Your task to perform on an android device: Open Maps and search for coffee Image 0: 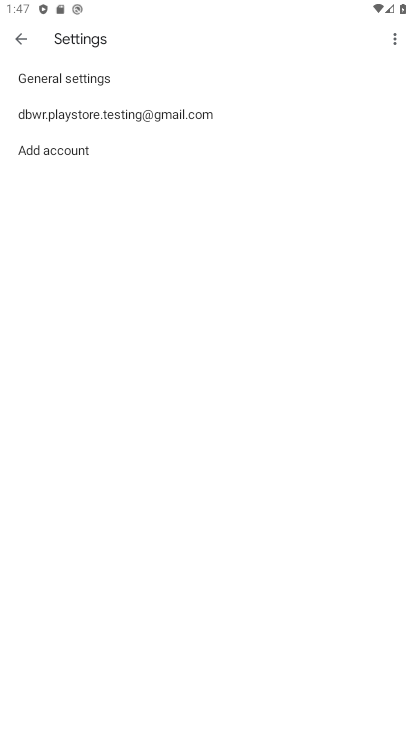
Step 0: press home button
Your task to perform on an android device: Open Maps and search for coffee Image 1: 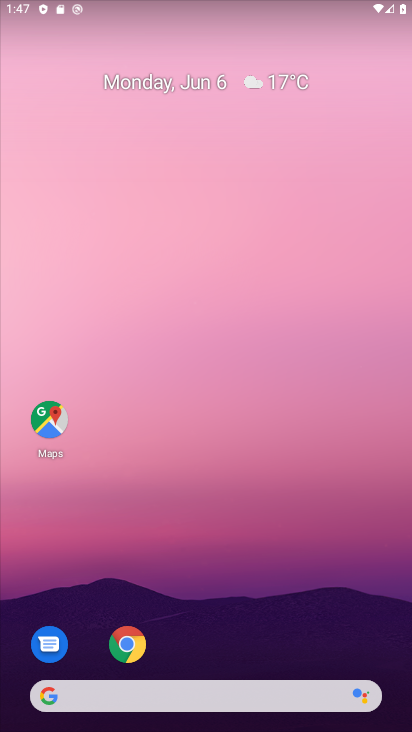
Step 1: click (47, 406)
Your task to perform on an android device: Open Maps and search for coffee Image 2: 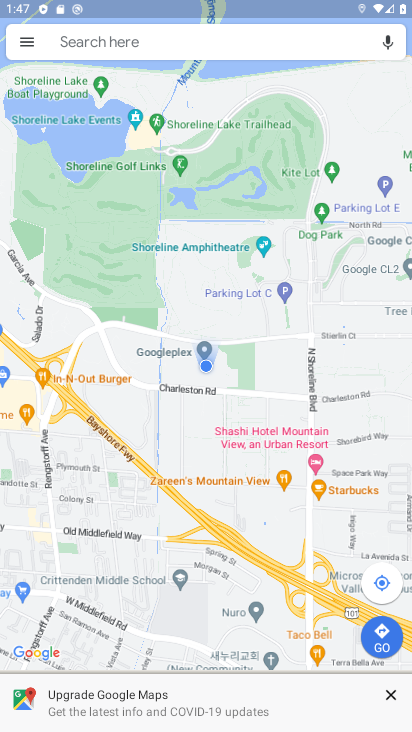
Step 2: click (240, 37)
Your task to perform on an android device: Open Maps and search for coffee Image 3: 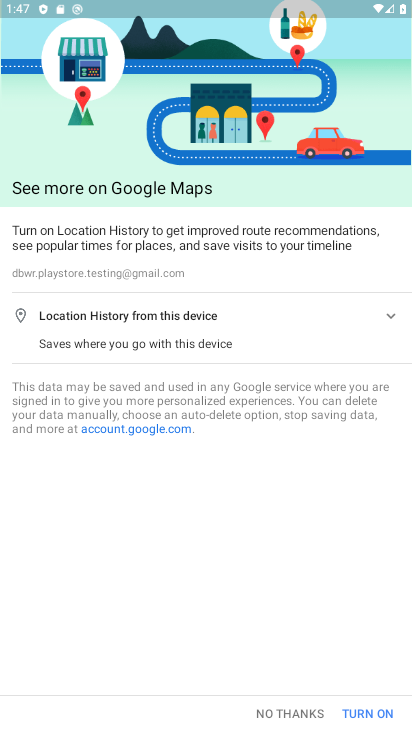
Step 3: click (285, 712)
Your task to perform on an android device: Open Maps and search for coffee Image 4: 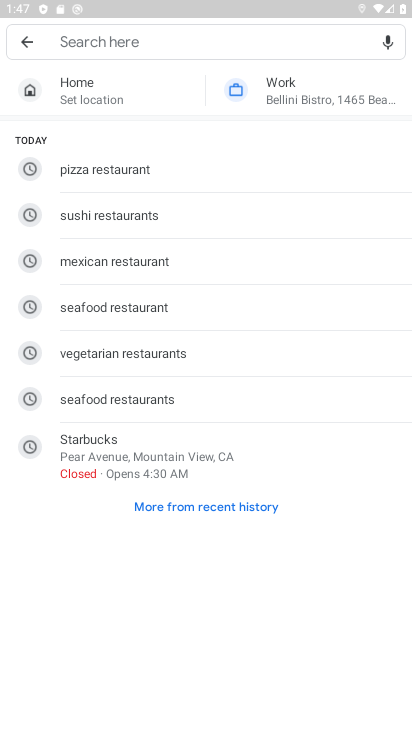
Step 4: click (123, 43)
Your task to perform on an android device: Open Maps and search for coffee Image 5: 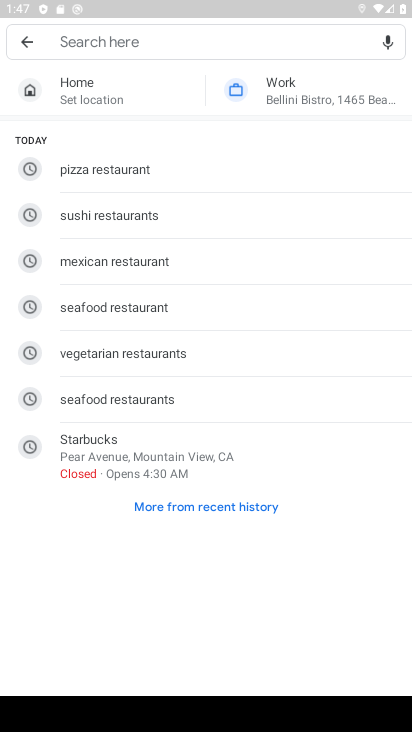
Step 5: type "coffee"
Your task to perform on an android device: Open Maps and search for coffee Image 6: 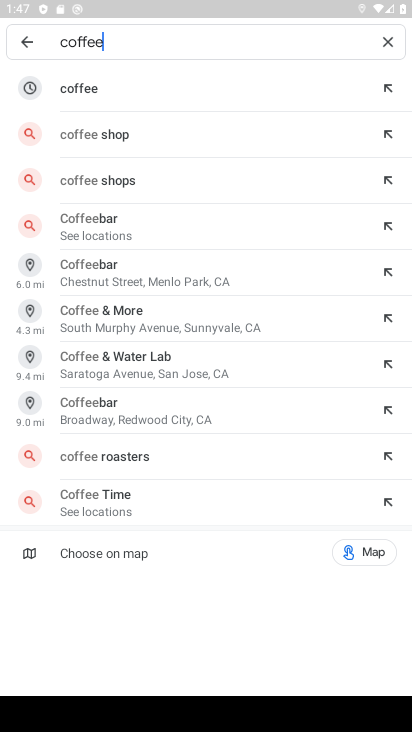
Step 6: click (156, 101)
Your task to perform on an android device: Open Maps and search for coffee Image 7: 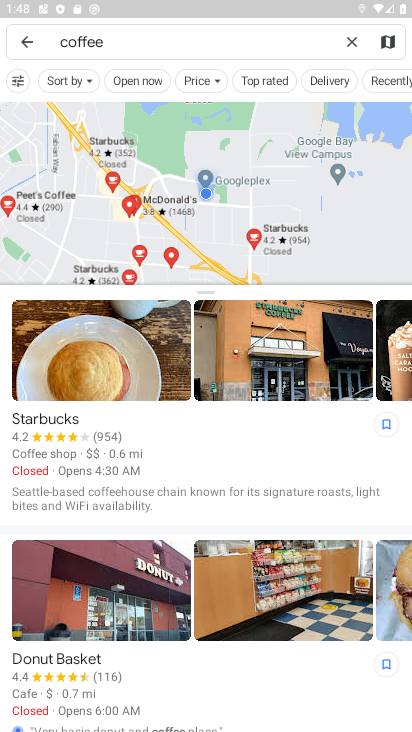
Step 7: task complete